Your task to perform on an android device: Show me the alarms in the clock app Image 0: 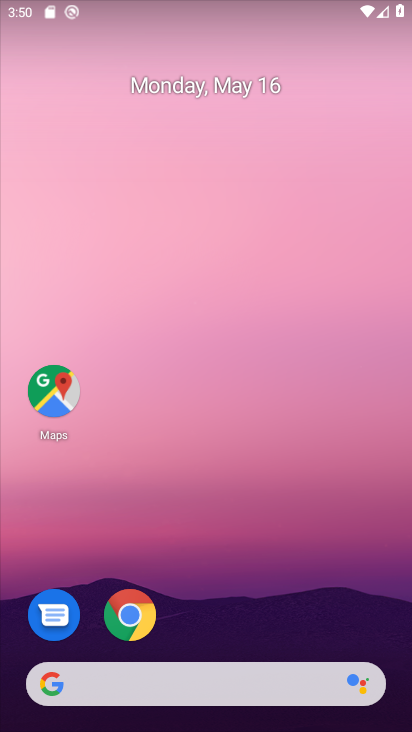
Step 0: drag from (218, 606) to (299, 13)
Your task to perform on an android device: Show me the alarms in the clock app Image 1: 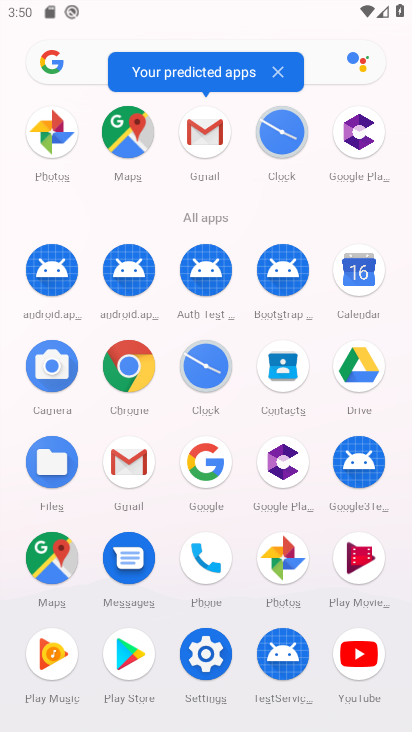
Step 1: click (194, 380)
Your task to perform on an android device: Show me the alarms in the clock app Image 2: 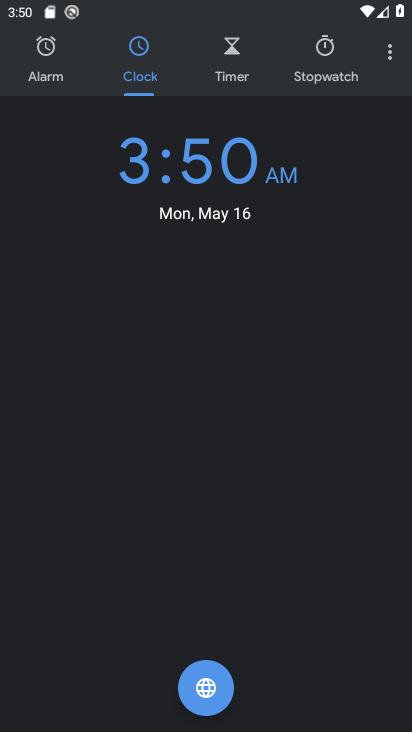
Step 2: click (66, 67)
Your task to perform on an android device: Show me the alarms in the clock app Image 3: 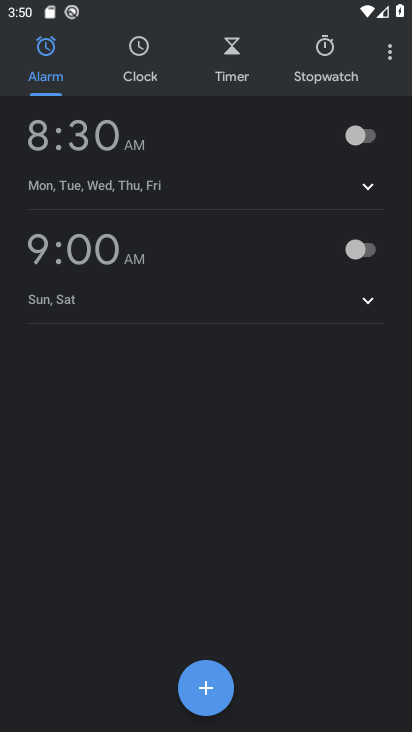
Step 3: task complete